Your task to perform on an android device: What's on my calendar today? Image 0: 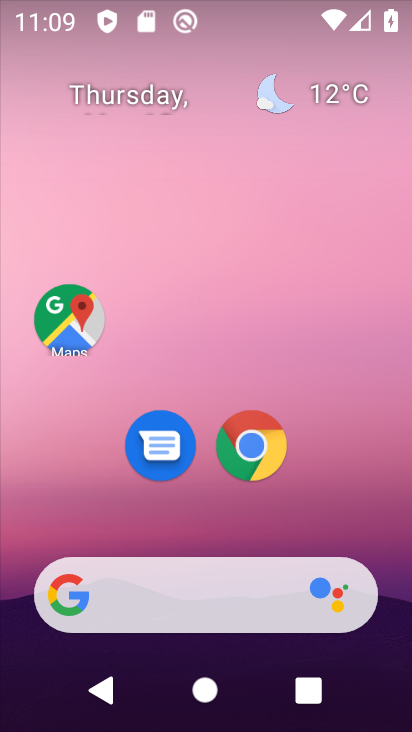
Step 0: drag from (222, 595) to (222, 217)
Your task to perform on an android device: What's on my calendar today? Image 1: 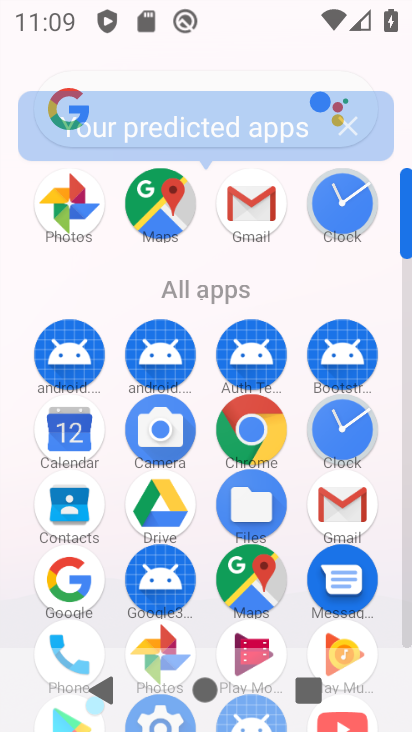
Step 1: click (56, 426)
Your task to perform on an android device: What's on my calendar today? Image 2: 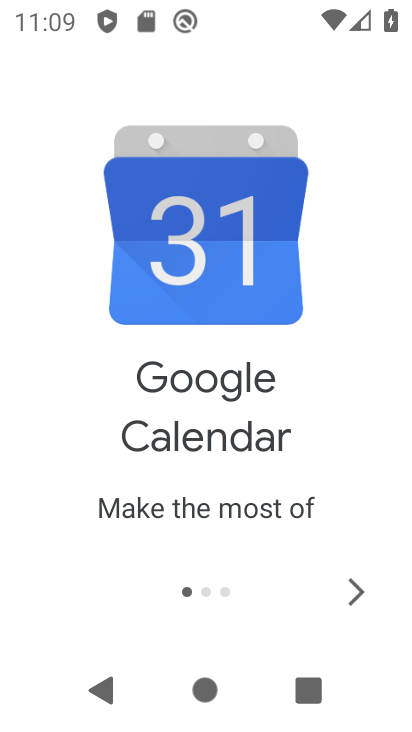
Step 2: click (354, 607)
Your task to perform on an android device: What's on my calendar today? Image 3: 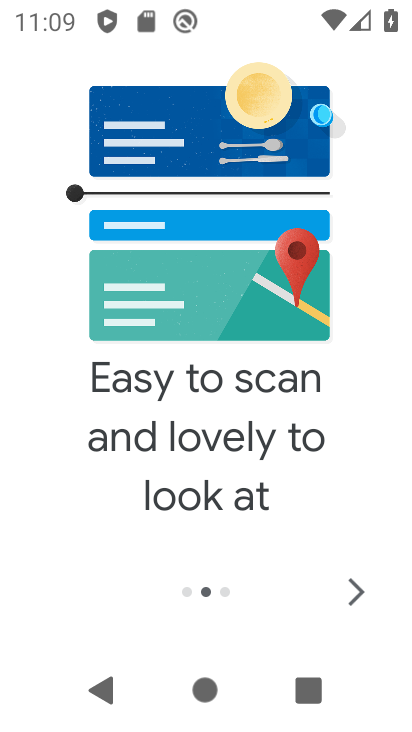
Step 3: click (354, 607)
Your task to perform on an android device: What's on my calendar today? Image 4: 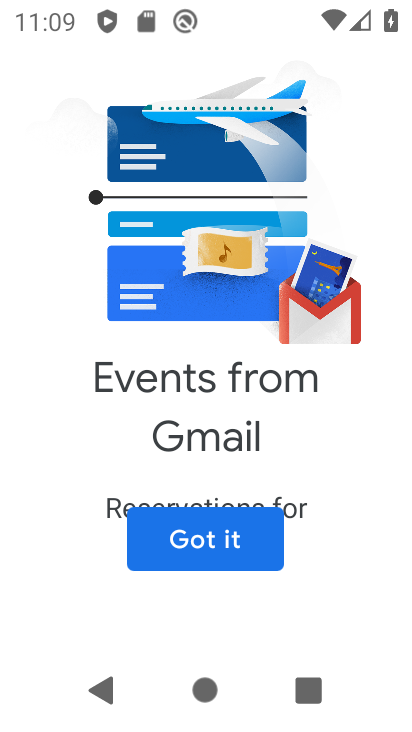
Step 4: click (160, 537)
Your task to perform on an android device: What's on my calendar today? Image 5: 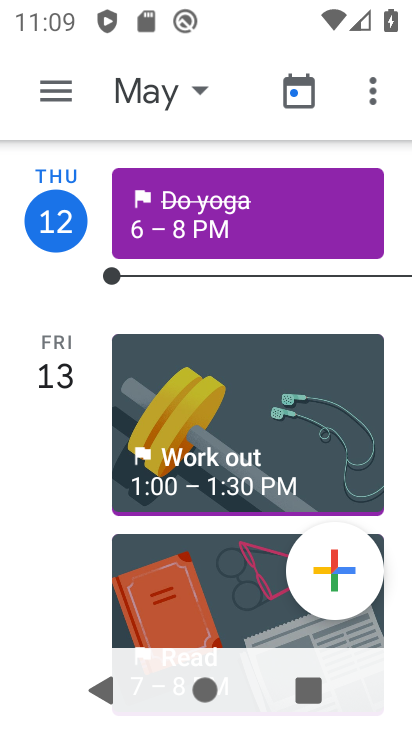
Step 5: task complete